Your task to perform on an android device: set the stopwatch Image 0: 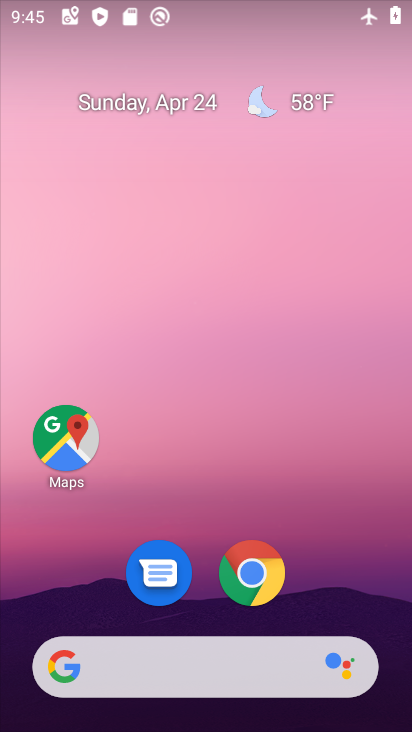
Step 0: drag from (343, 586) to (337, 132)
Your task to perform on an android device: set the stopwatch Image 1: 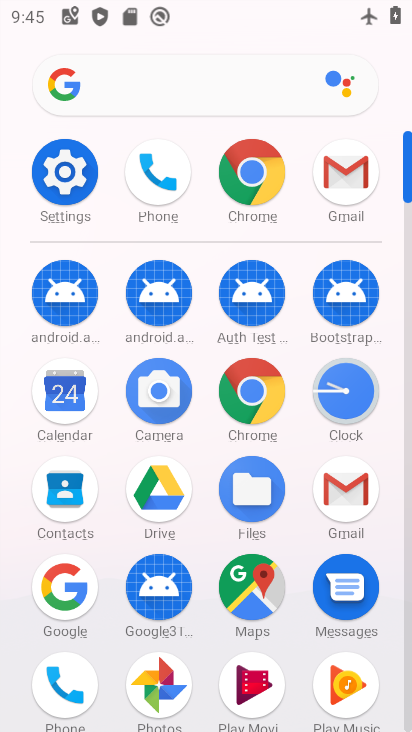
Step 1: click (355, 390)
Your task to perform on an android device: set the stopwatch Image 2: 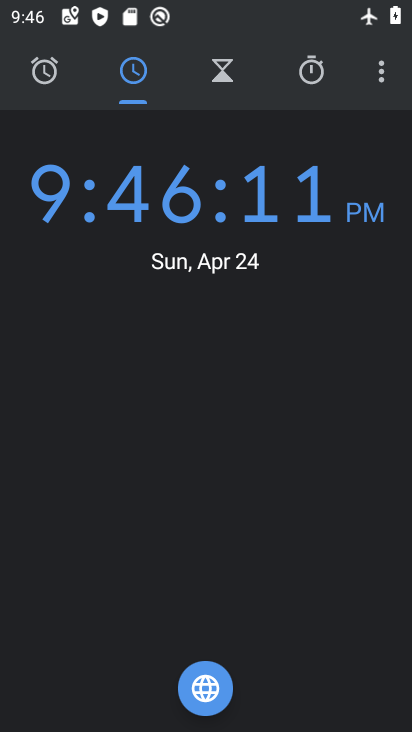
Step 2: click (328, 72)
Your task to perform on an android device: set the stopwatch Image 3: 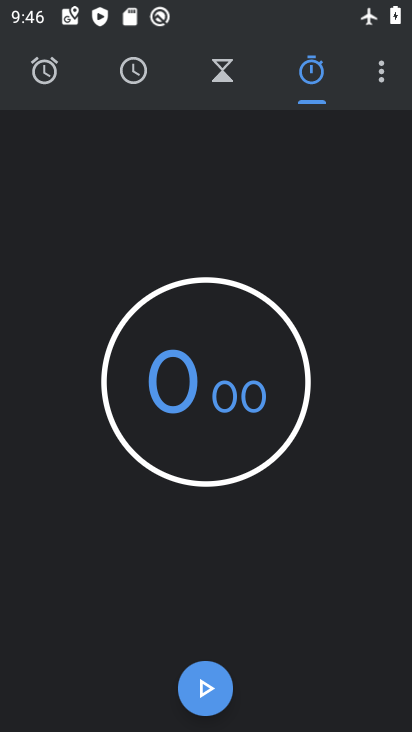
Step 3: click (199, 684)
Your task to perform on an android device: set the stopwatch Image 4: 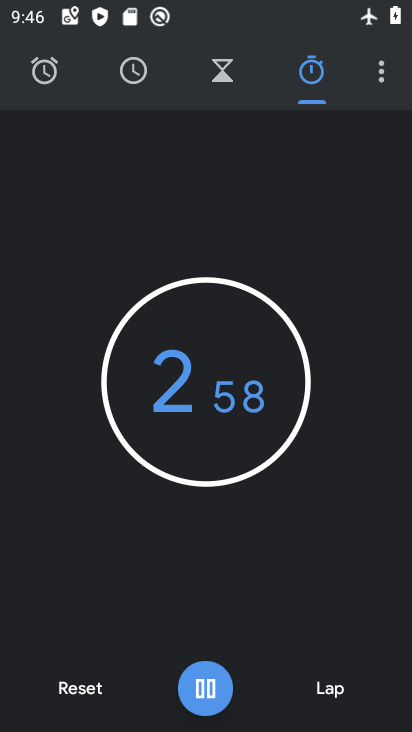
Step 4: click (199, 684)
Your task to perform on an android device: set the stopwatch Image 5: 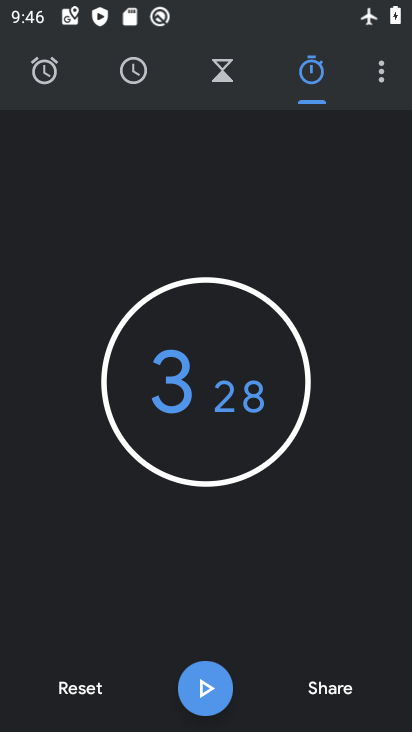
Step 5: task complete